Your task to perform on an android device: See recent photos Image 0: 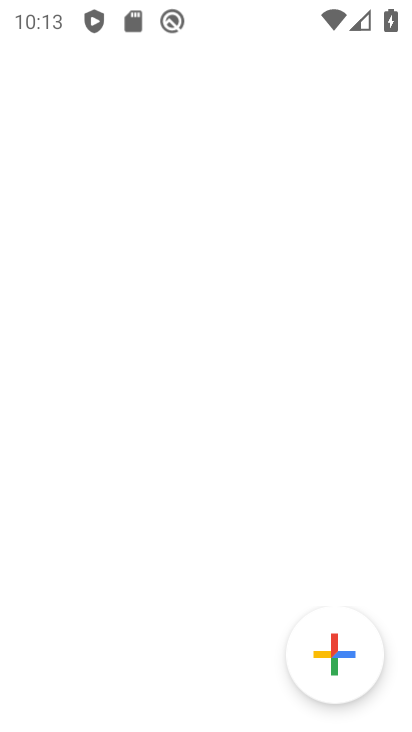
Step 0: click (252, 394)
Your task to perform on an android device: See recent photos Image 1: 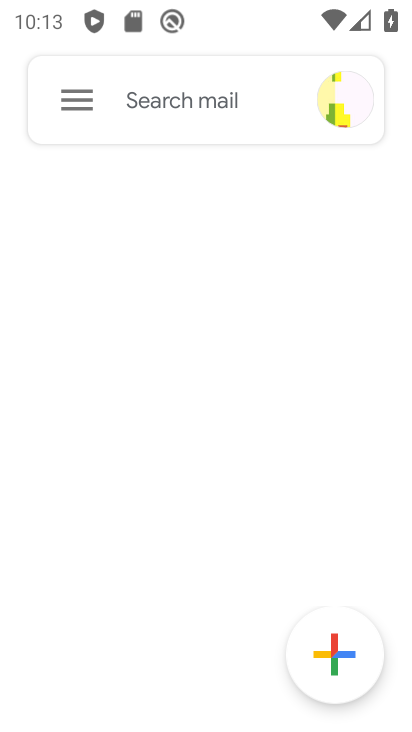
Step 1: press home button
Your task to perform on an android device: See recent photos Image 2: 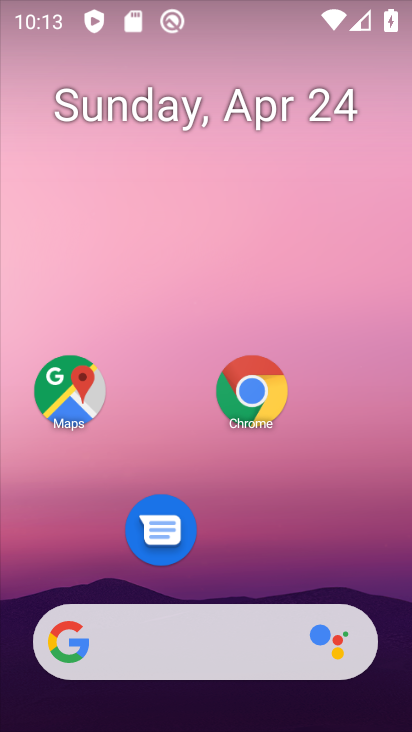
Step 2: drag from (288, 543) to (302, 176)
Your task to perform on an android device: See recent photos Image 3: 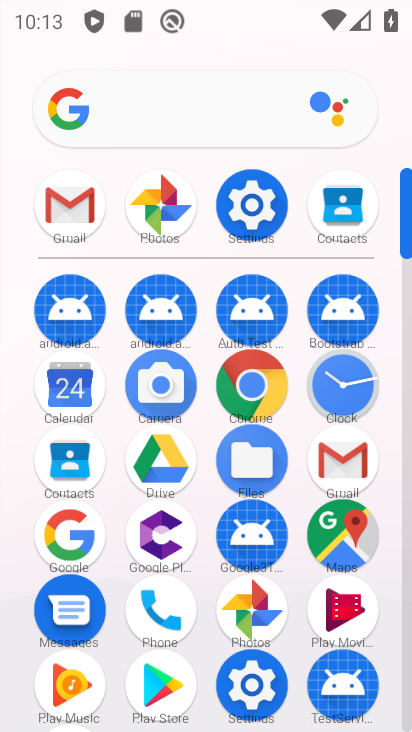
Step 3: click (166, 223)
Your task to perform on an android device: See recent photos Image 4: 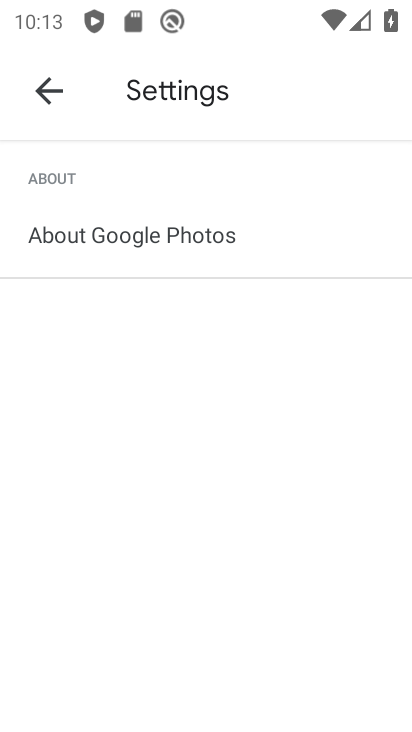
Step 4: click (54, 102)
Your task to perform on an android device: See recent photos Image 5: 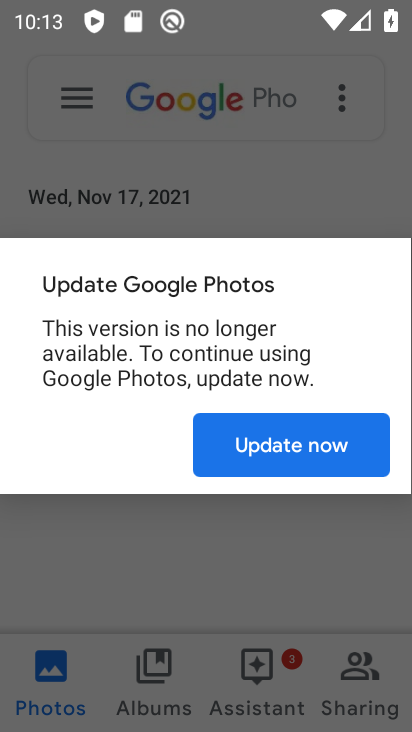
Step 5: task complete